Your task to perform on an android device: Open Google Maps Image 0: 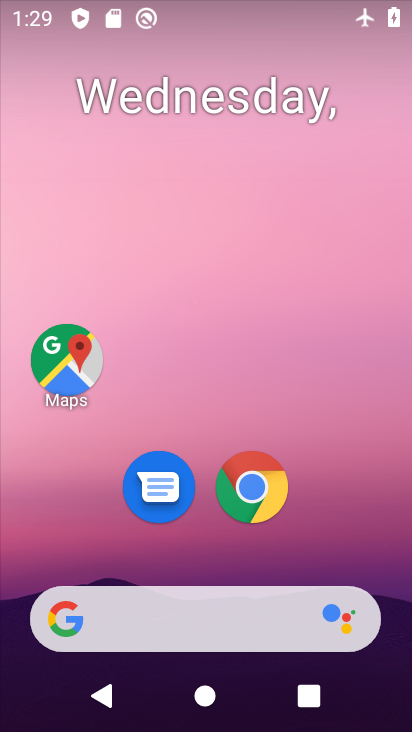
Step 0: click (47, 357)
Your task to perform on an android device: Open Google Maps Image 1: 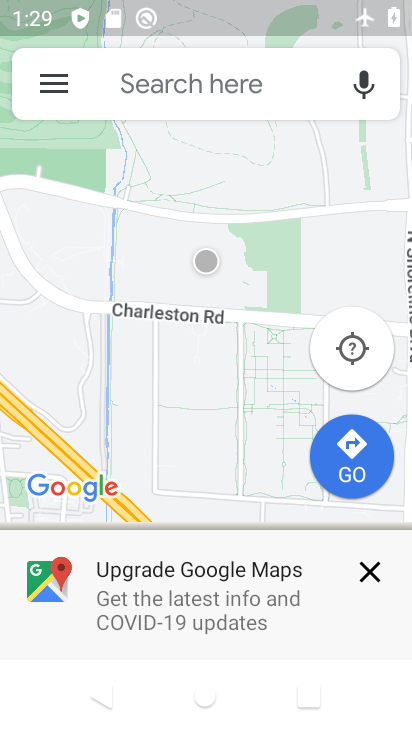
Step 1: task complete